Your task to perform on an android device: turn on priority inbox in the gmail app Image 0: 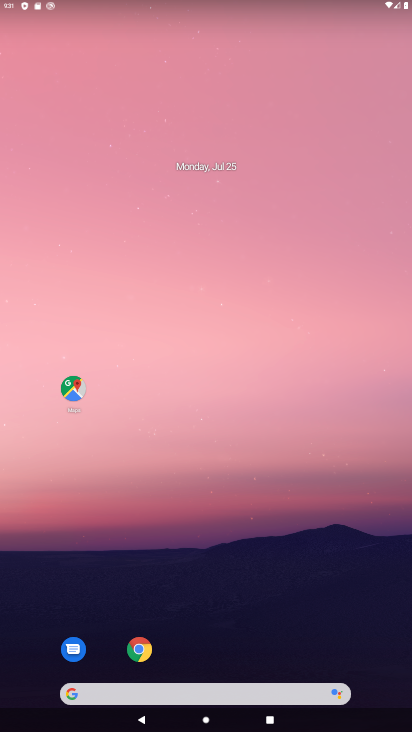
Step 0: drag from (213, 490) to (208, 63)
Your task to perform on an android device: turn on priority inbox in the gmail app Image 1: 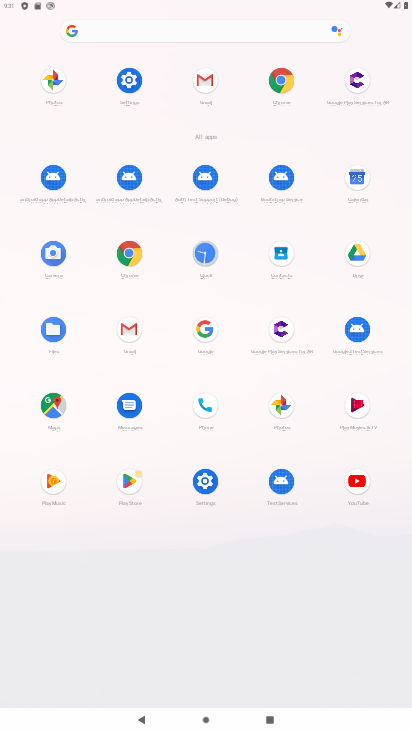
Step 1: click (118, 344)
Your task to perform on an android device: turn on priority inbox in the gmail app Image 2: 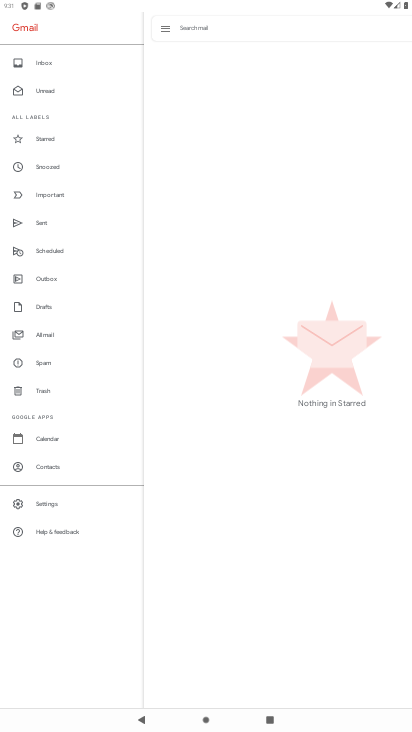
Step 2: click (44, 501)
Your task to perform on an android device: turn on priority inbox in the gmail app Image 3: 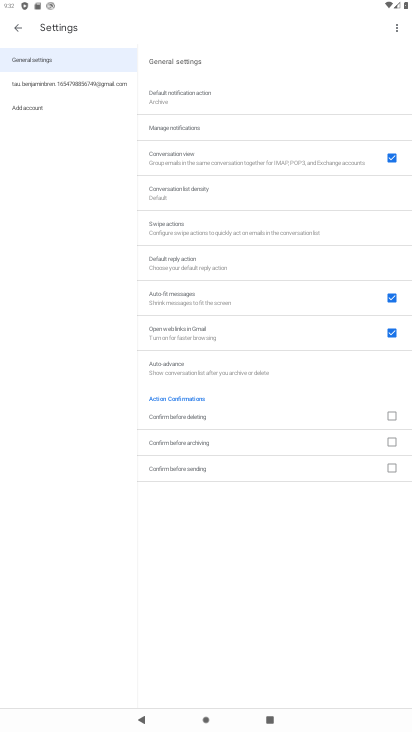
Step 3: click (71, 85)
Your task to perform on an android device: turn on priority inbox in the gmail app Image 4: 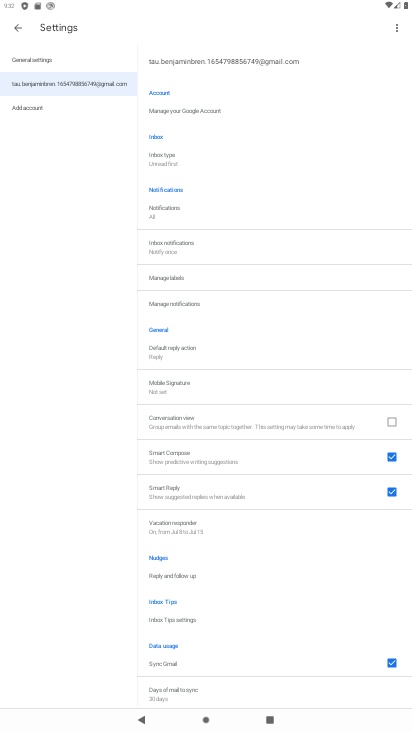
Step 4: click (182, 161)
Your task to perform on an android device: turn on priority inbox in the gmail app Image 5: 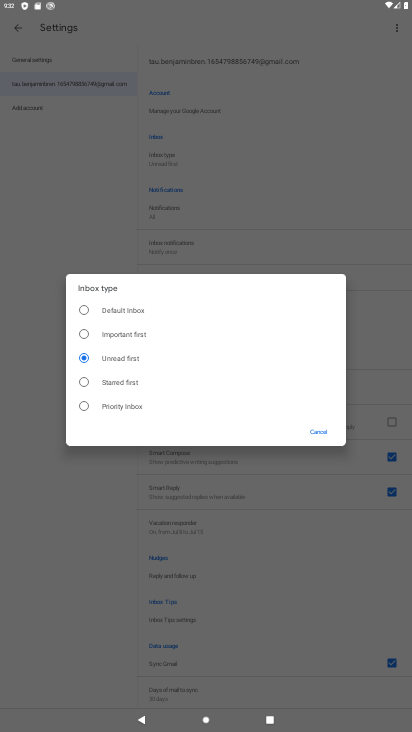
Step 5: click (116, 408)
Your task to perform on an android device: turn on priority inbox in the gmail app Image 6: 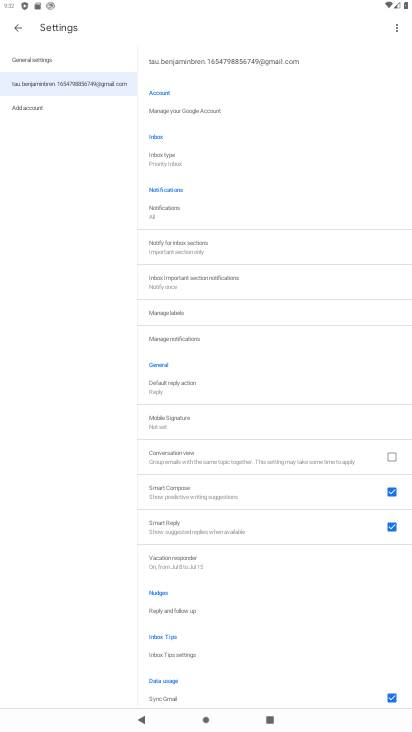
Step 6: task complete